Your task to perform on an android device: open chrome privacy settings Image 0: 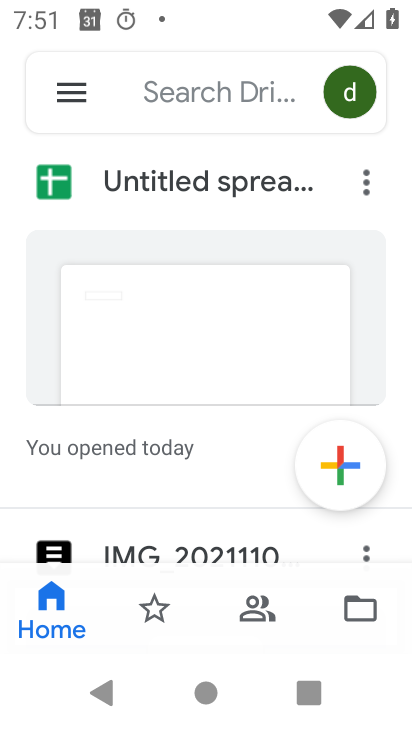
Step 0: press back button
Your task to perform on an android device: open chrome privacy settings Image 1: 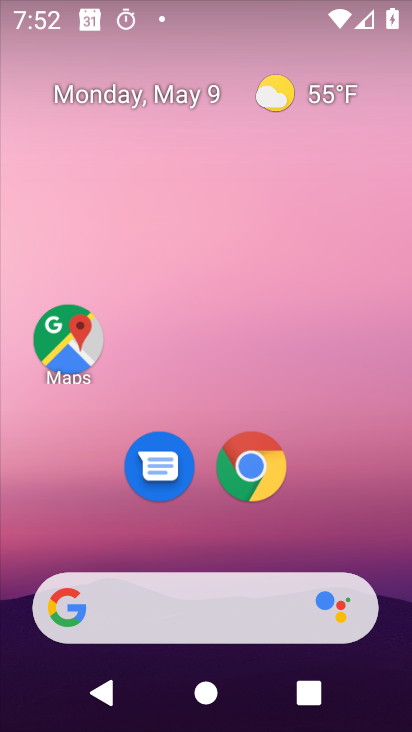
Step 1: drag from (383, 514) to (196, 88)
Your task to perform on an android device: open chrome privacy settings Image 2: 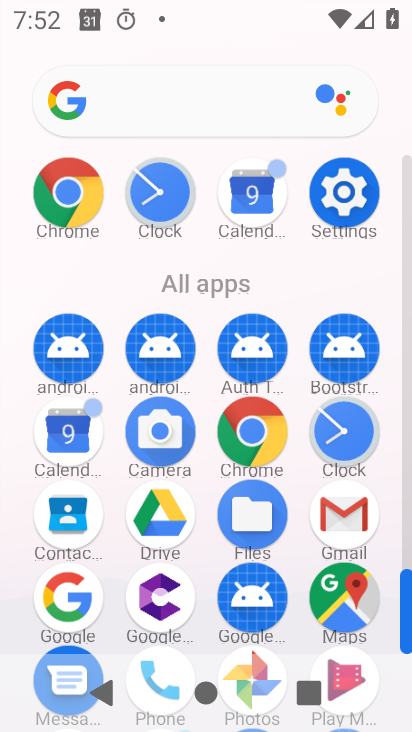
Step 2: click (77, 198)
Your task to perform on an android device: open chrome privacy settings Image 3: 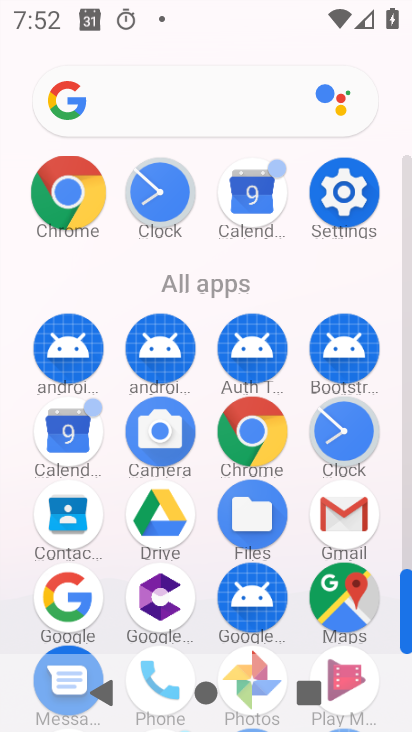
Step 3: click (78, 200)
Your task to perform on an android device: open chrome privacy settings Image 4: 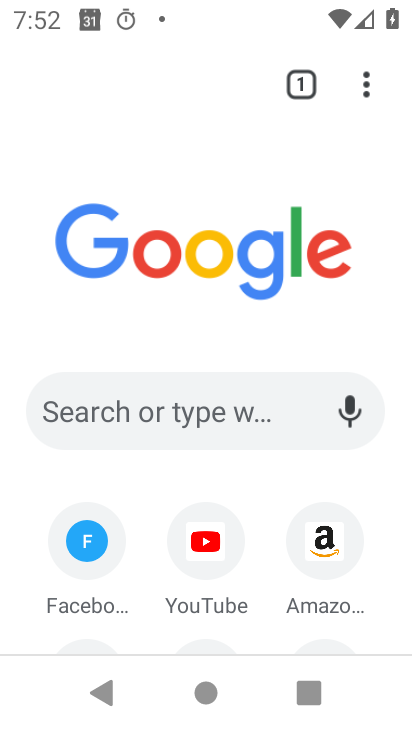
Step 4: click (370, 94)
Your task to perform on an android device: open chrome privacy settings Image 5: 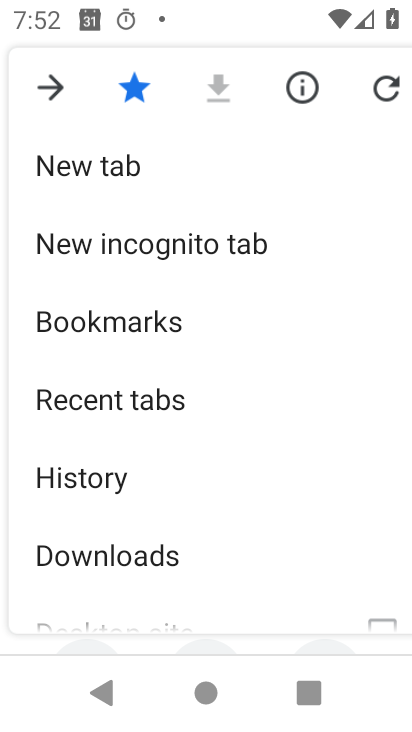
Step 5: drag from (222, 503) to (203, 75)
Your task to perform on an android device: open chrome privacy settings Image 6: 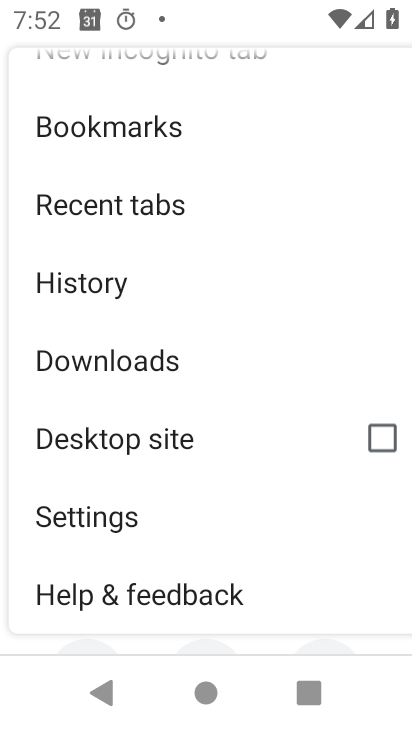
Step 6: drag from (192, 397) to (176, 179)
Your task to perform on an android device: open chrome privacy settings Image 7: 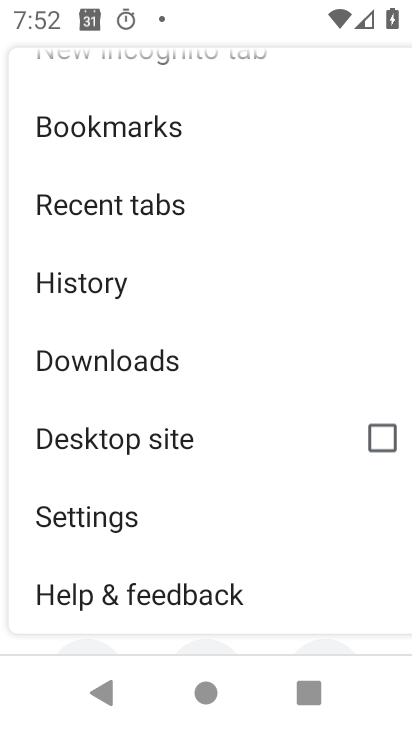
Step 7: click (88, 506)
Your task to perform on an android device: open chrome privacy settings Image 8: 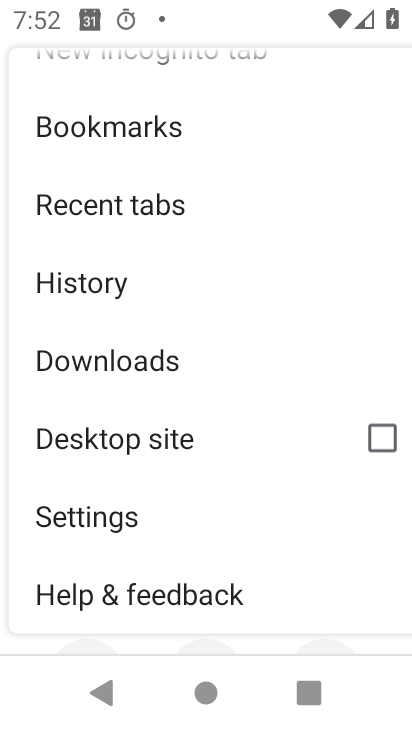
Step 8: click (88, 506)
Your task to perform on an android device: open chrome privacy settings Image 9: 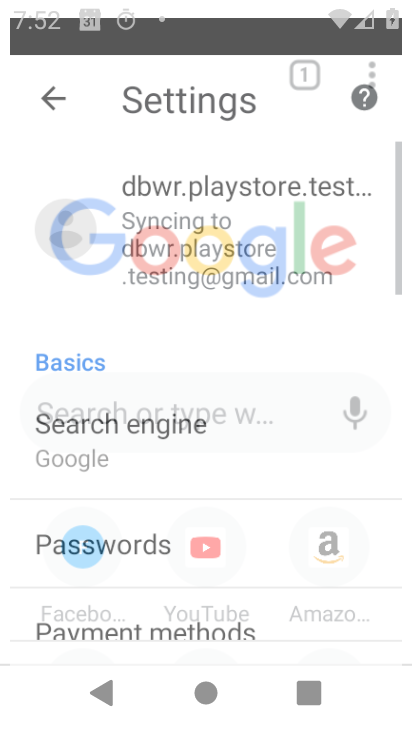
Step 9: click (88, 513)
Your task to perform on an android device: open chrome privacy settings Image 10: 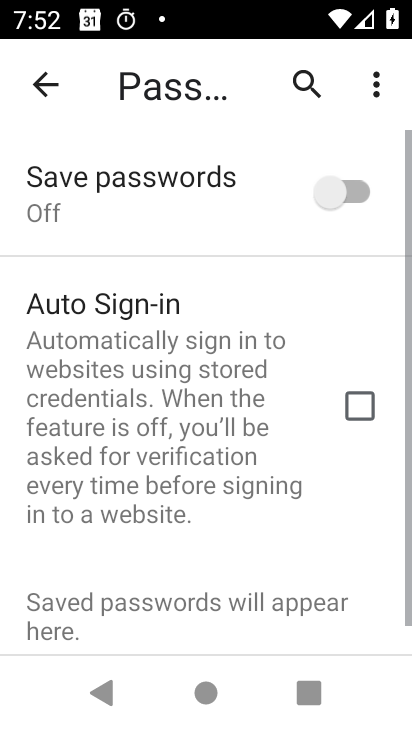
Step 10: click (49, 92)
Your task to perform on an android device: open chrome privacy settings Image 11: 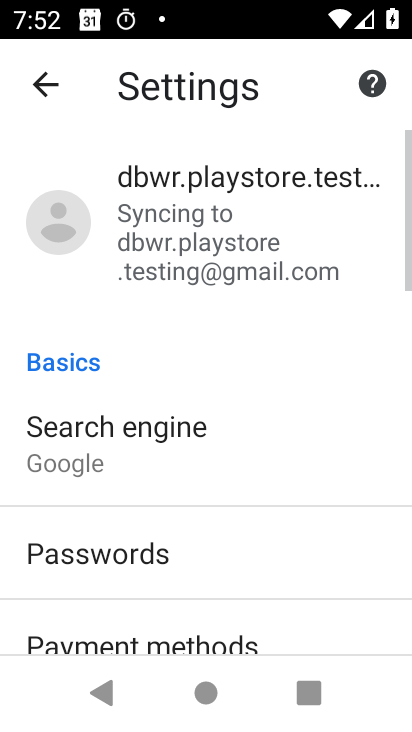
Step 11: drag from (186, 518) to (229, 135)
Your task to perform on an android device: open chrome privacy settings Image 12: 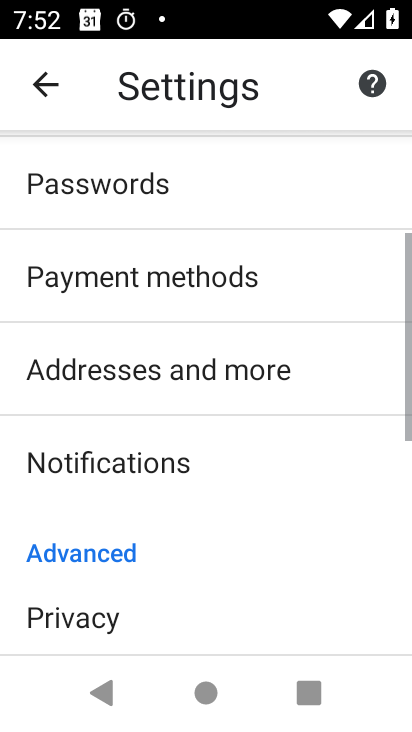
Step 12: drag from (224, 423) to (233, 228)
Your task to perform on an android device: open chrome privacy settings Image 13: 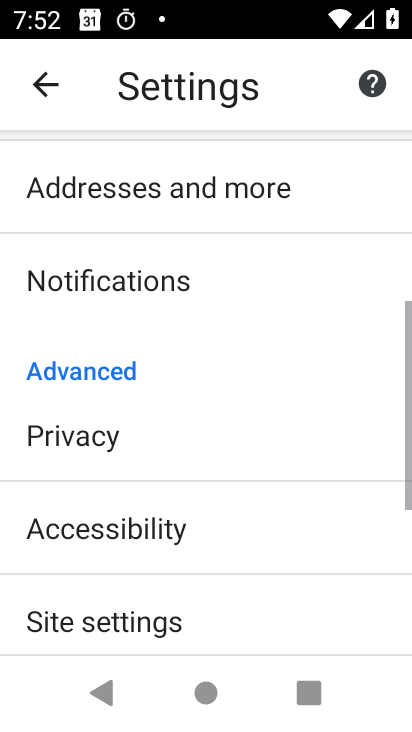
Step 13: drag from (163, 488) to (158, 114)
Your task to perform on an android device: open chrome privacy settings Image 14: 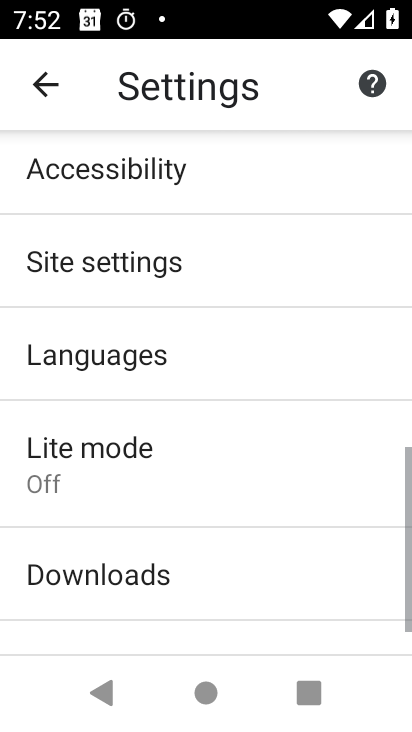
Step 14: drag from (112, 291) to (174, 622)
Your task to perform on an android device: open chrome privacy settings Image 15: 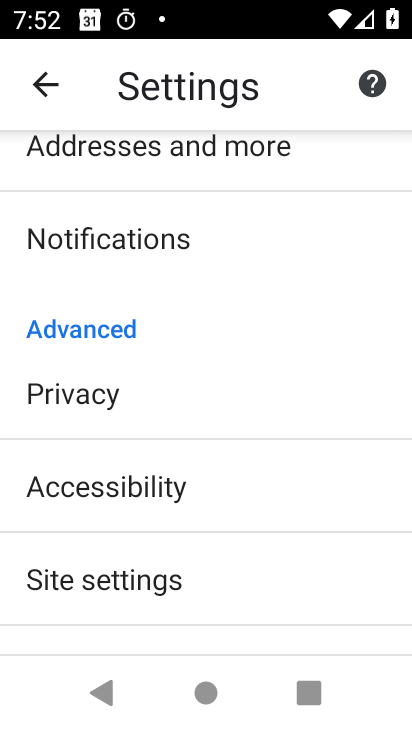
Step 15: click (73, 396)
Your task to perform on an android device: open chrome privacy settings Image 16: 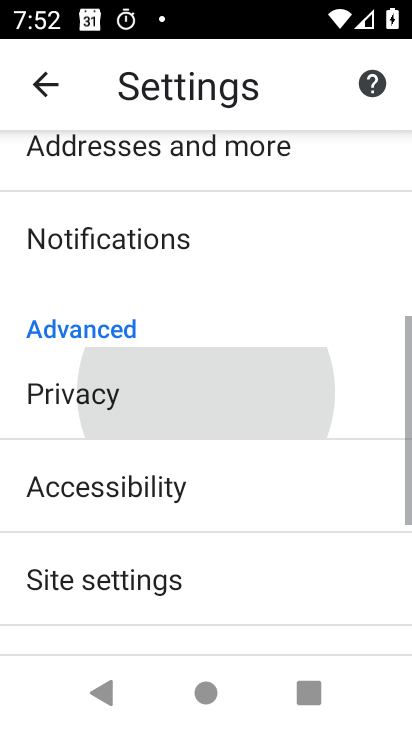
Step 16: click (74, 395)
Your task to perform on an android device: open chrome privacy settings Image 17: 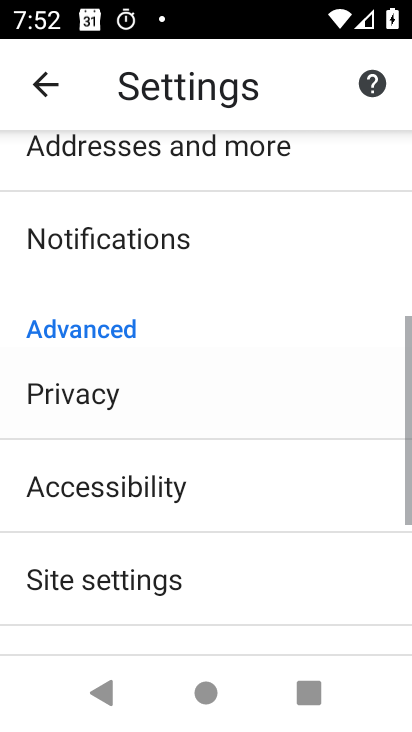
Step 17: click (74, 395)
Your task to perform on an android device: open chrome privacy settings Image 18: 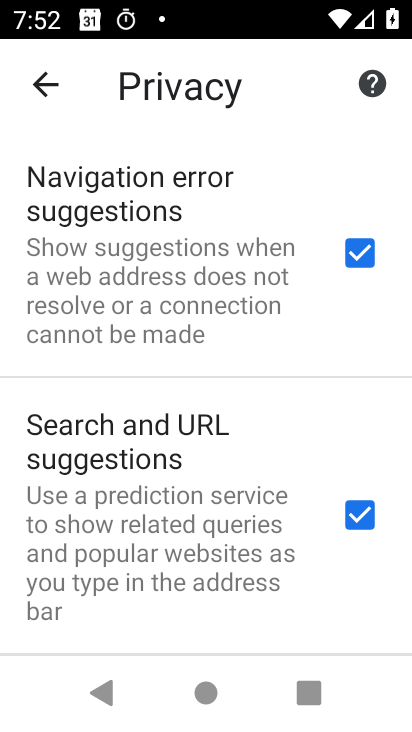
Step 18: press home button
Your task to perform on an android device: open chrome privacy settings Image 19: 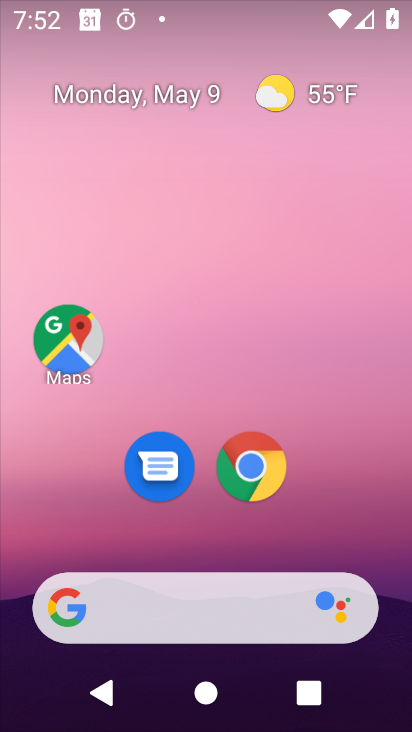
Step 19: drag from (389, 547) to (228, 53)
Your task to perform on an android device: open chrome privacy settings Image 20: 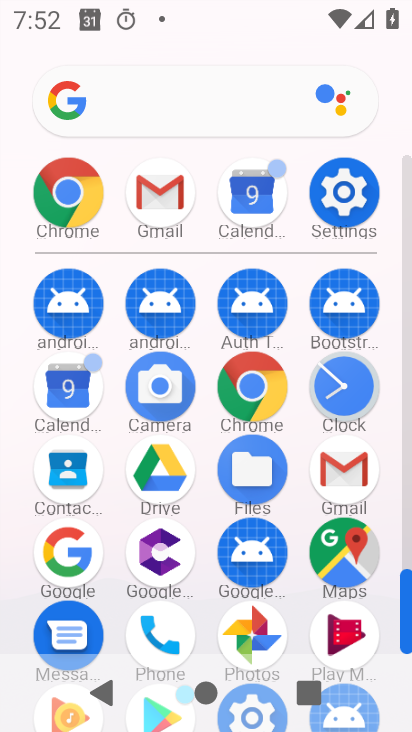
Step 20: click (254, 395)
Your task to perform on an android device: open chrome privacy settings Image 21: 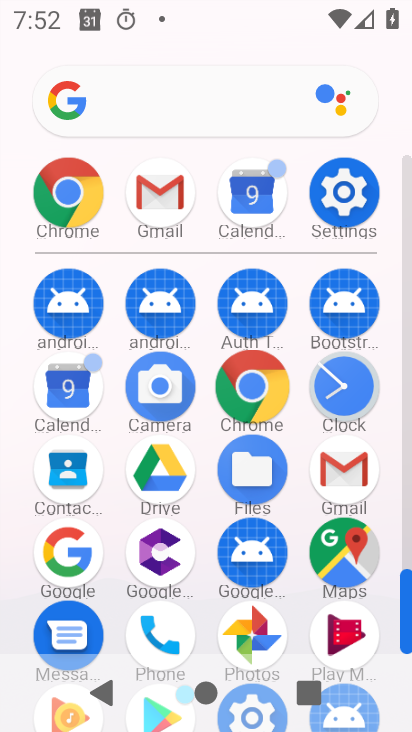
Step 21: click (254, 395)
Your task to perform on an android device: open chrome privacy settings Image 22: 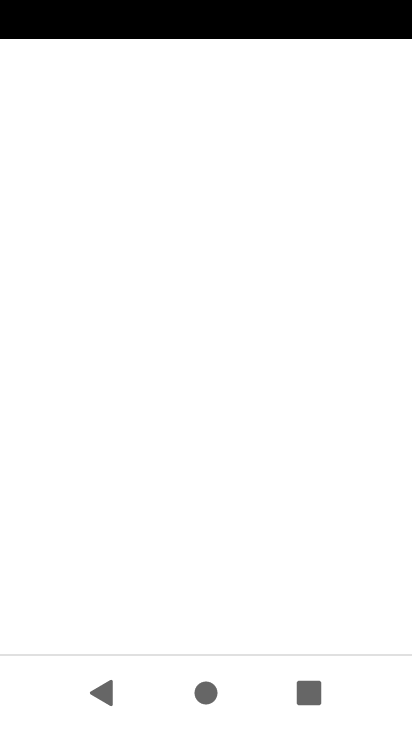
Step 22: click (254, 392)
Your task to perform on an android device: open chrome privacy settings Image 23: 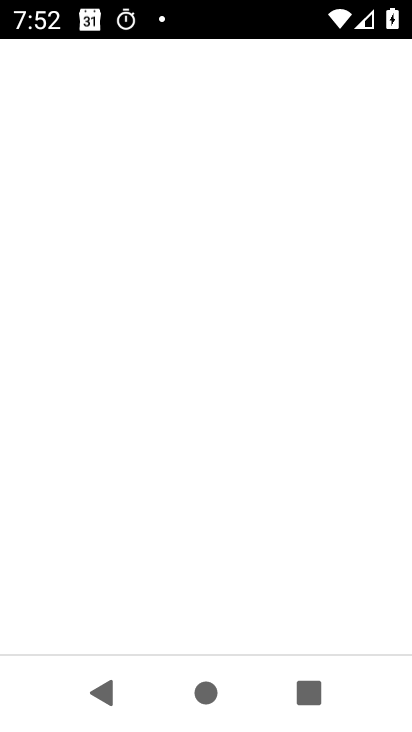
Step 23: click (253, 389)
Your task to perform on an android device: open chrome privacy settings Image 24: 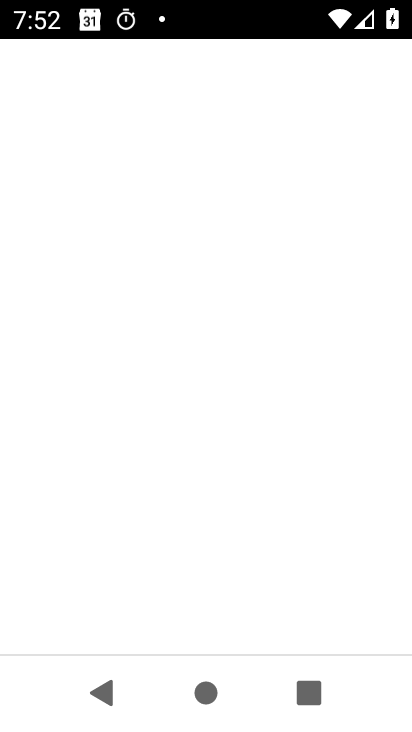
Step 24: click (252, 386)
Your task to perform on an android device: open chrome privacy settings Image 25: 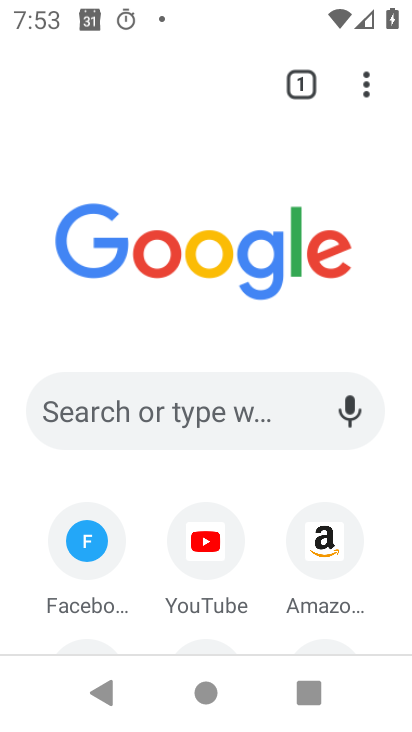
Step 25: drag from (361, 90) to (109, 516)
Your task to perform on an android device: open chrome privacy settings Image 26: 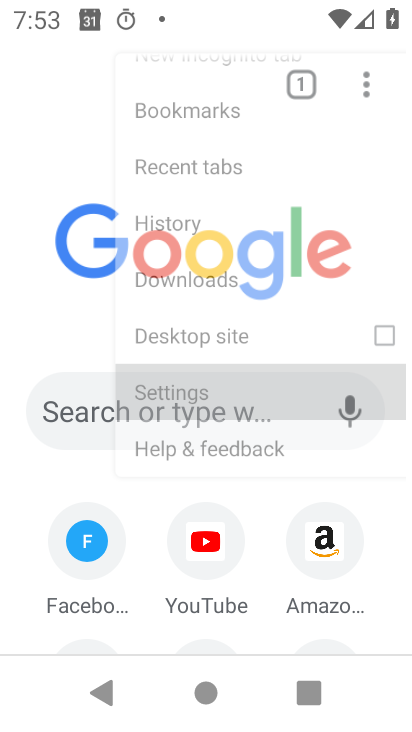
Step 26: click (109, 516)
Your task to perform on an android device: open chrome privacy settings Image 27: 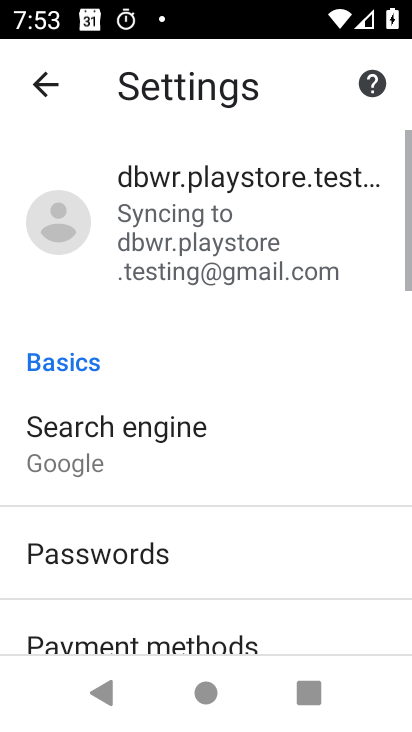
Step 27: drag from (173, 505) to (143, 219)
Your task to perform on an android device: open chrome privacy settings Image 28: 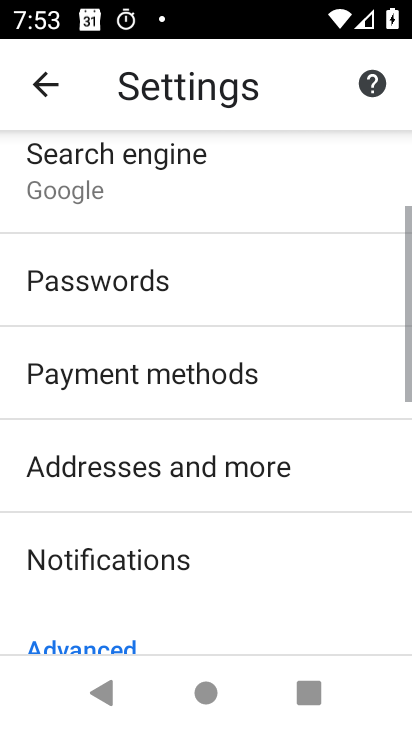
Step 28: drag from (192, 369) to (192, 34)
Your task to perform on an android device: open chrome privacy settings Image 29: 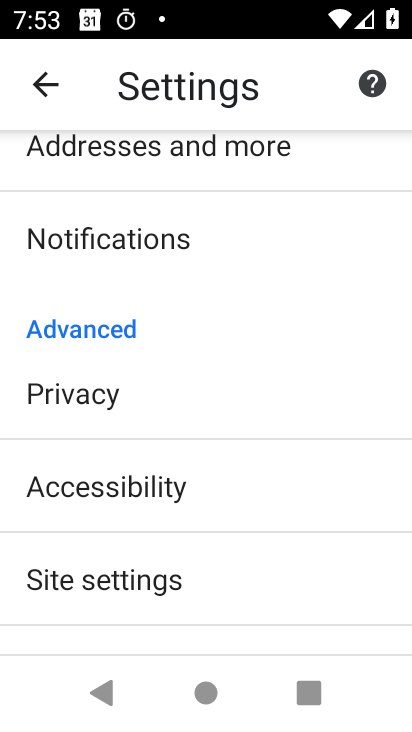
Step 29: click (59, 392)
Your task to perform on an android device: open chrome privacy settings Image 30: 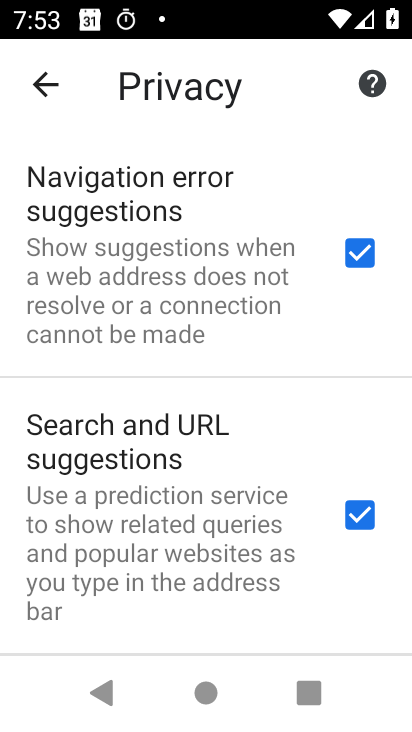
Step 30: task complete